Your task to perform on an android device: change the clock display to show seconds Image 0: 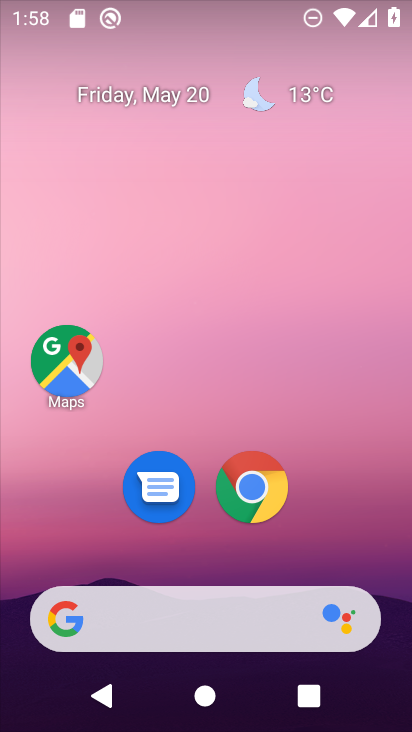
Step 0: drag from (238, 556) to (227, 5)
Your task to perform on an android device: change the clock display to show seconds Image 1: 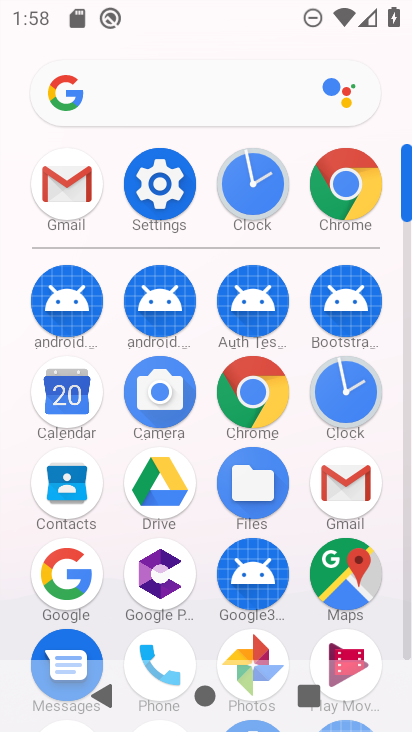
Step 1: click (343, 381)
Your task to perform on an android device: change the clock display to show seconds Image 2: 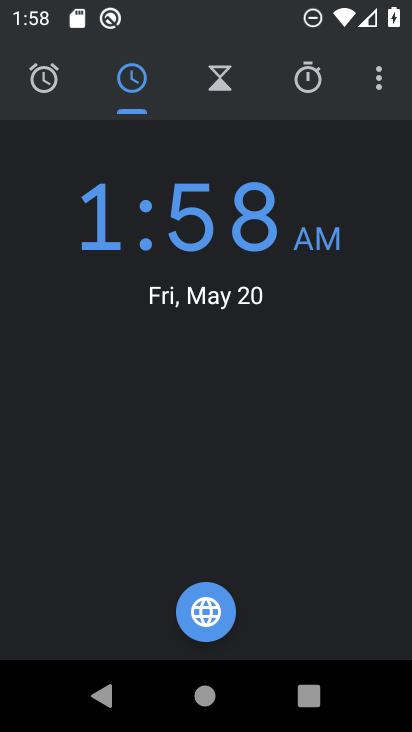
Step 2: click (379, 77)
Your task to perform on an android device: change the clock display to show seconds Image 3: 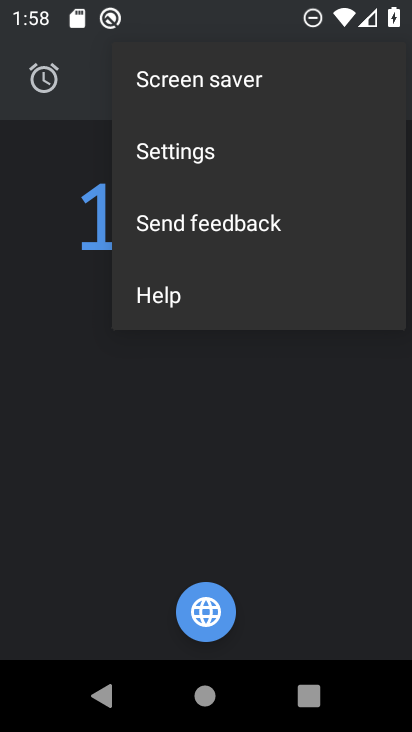
Step 3: click (239, 148)
Your task to perform on an android device: change the clock display to show seconds Image 4: 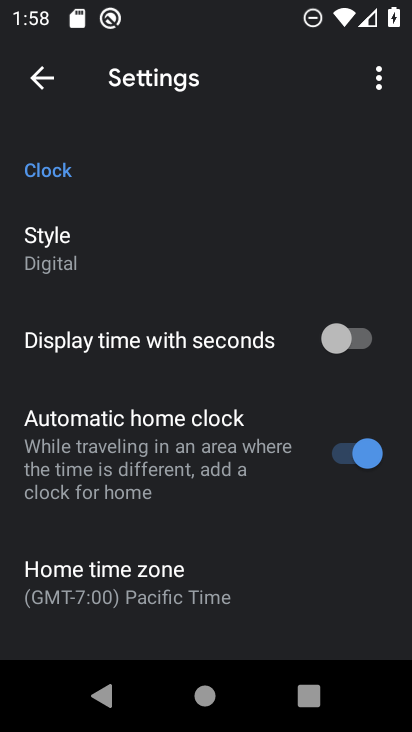
Step 4: click (348, 335)
Your task to perform on an android device: change the clock display to show seconds Image 5: 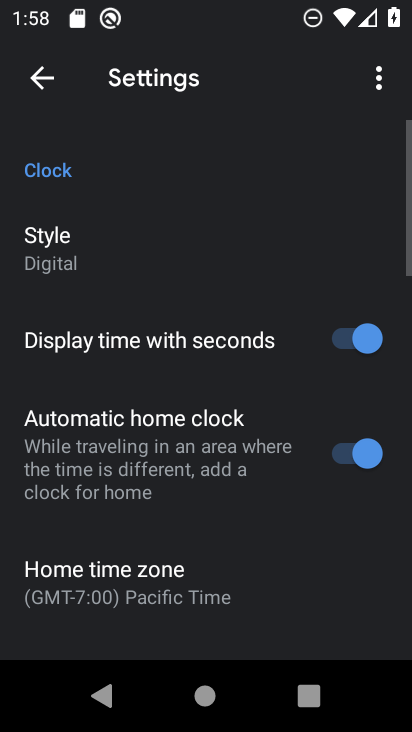
Step 5: task complete